Your task to perform on an android device: toggle pop-ups in chrome Image 0: 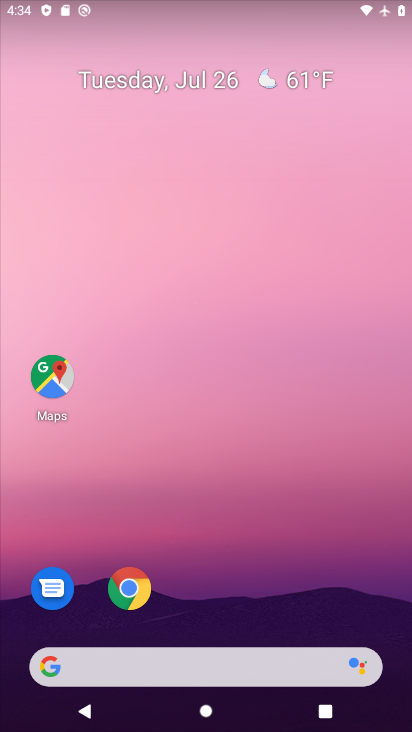
Step 0: drag from (263, 584) to (182, 54)
Your task to perform on an android device: toggle pop-ups in chrome Image 1: 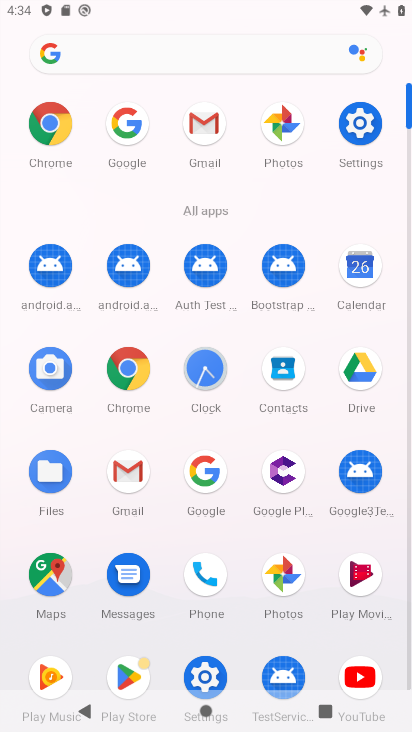
Step 1: click (44, 128)
Your task to perform on an android device: toggle pop-ups in chrome Image 2: 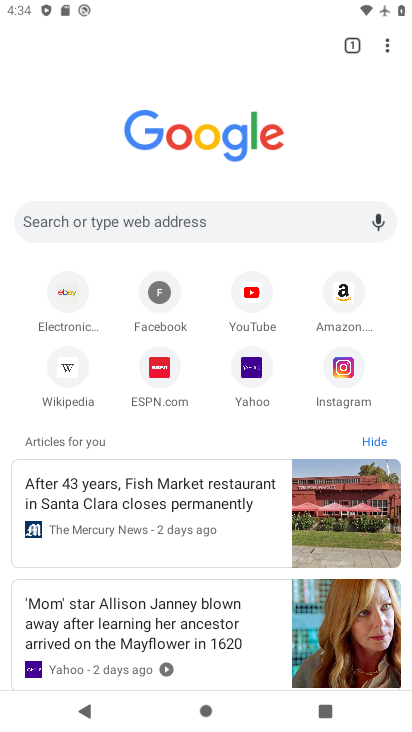
Step 2: drag from (397, 51) to (265, 384)
Your task to perform on an android device: toggle pop-ups in chrome Image 3: 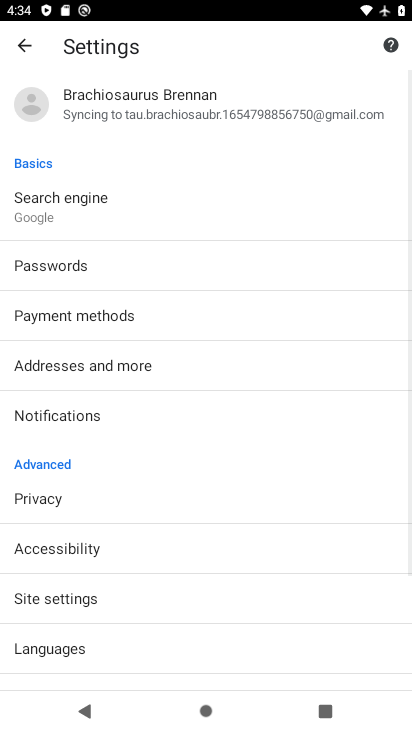
Step 3: click (90, 604)
Your task to perform on an android device: toggle pop-ups in chrome Image 4: 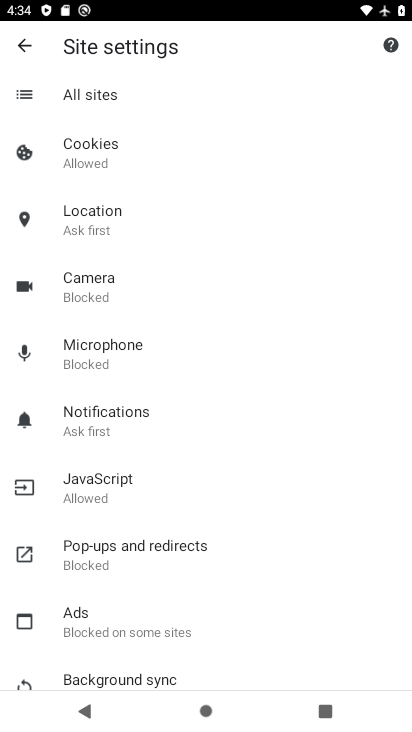
Step 4: click (130, 554)
Your task to perform on an android device: toggle pop-ups in chrome Image 5: 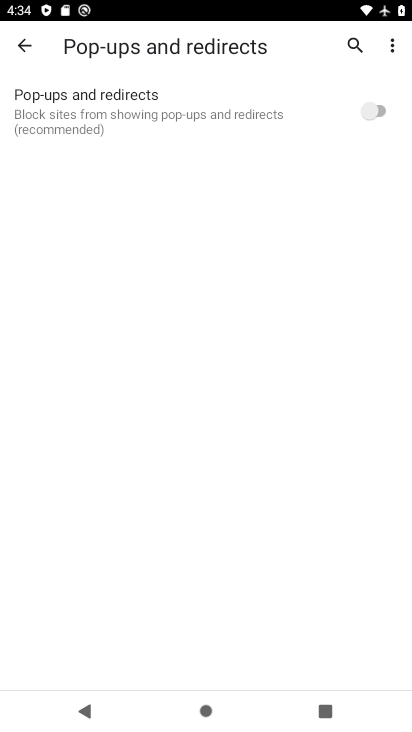
Step 5: click (370, 112)
Your task to perform on an android device: toggle pop-ups in chrome Image 6: 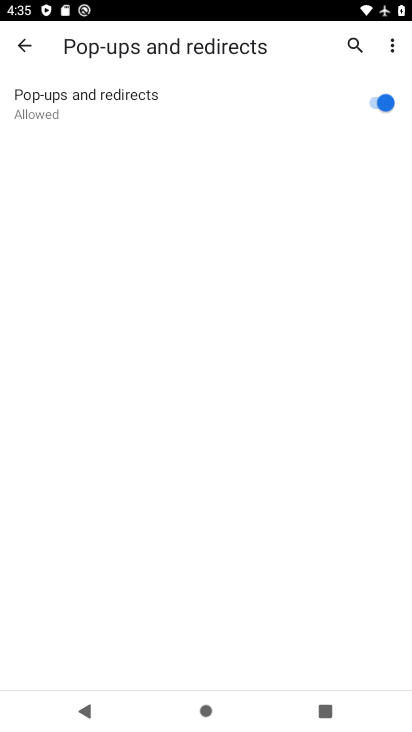
Step 6: task complete